Your task to perform on an android device: delete a single message in the gmail app Image 0: 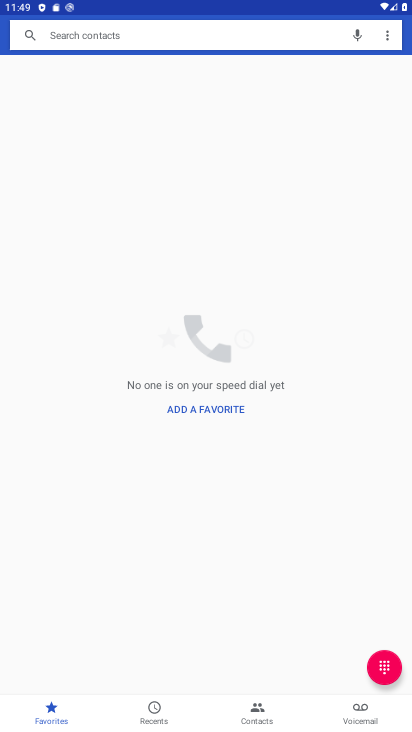
Step 0: press home button
Your task to perform on an android device: delete a single message in the gmail app Image 1: 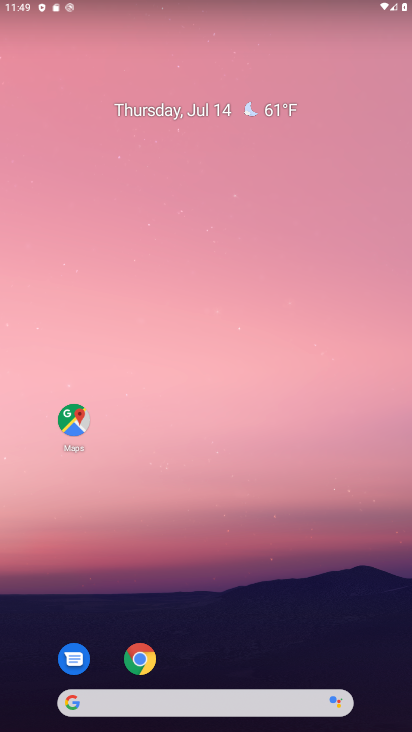
Step 1: drag from (266, 640) to (359, 74)
Your task to perform on an android device: delete a single message in the gmail app Image 2: 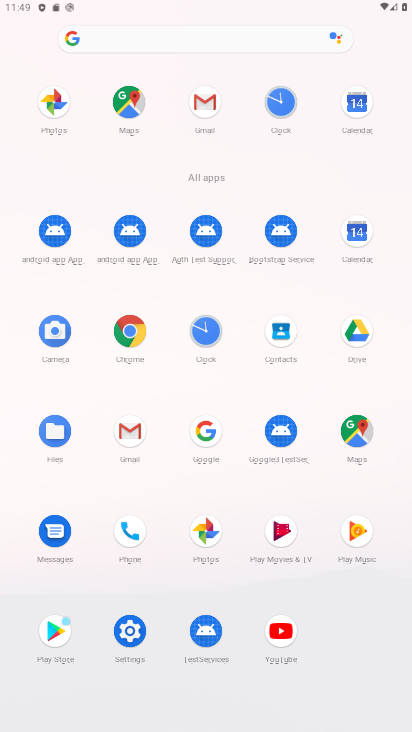
Step 2: click (201, 104)
Your task to perform on an android device: delete a single message in the gmail app Image 3: 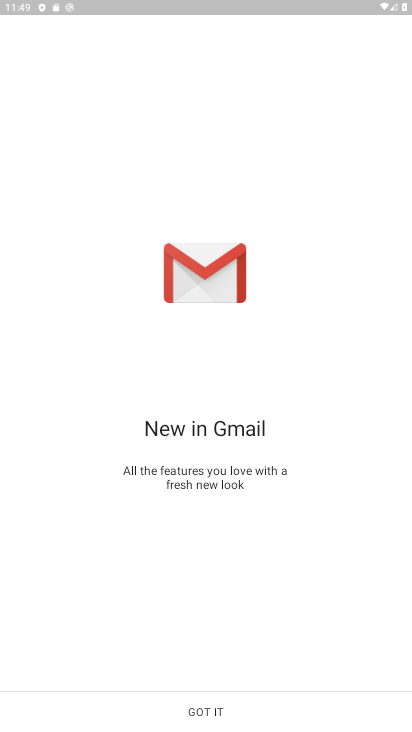
Step 3: click (226, 712)
Your task to perform on an android device: delete a single message in the gmail app Image 4: 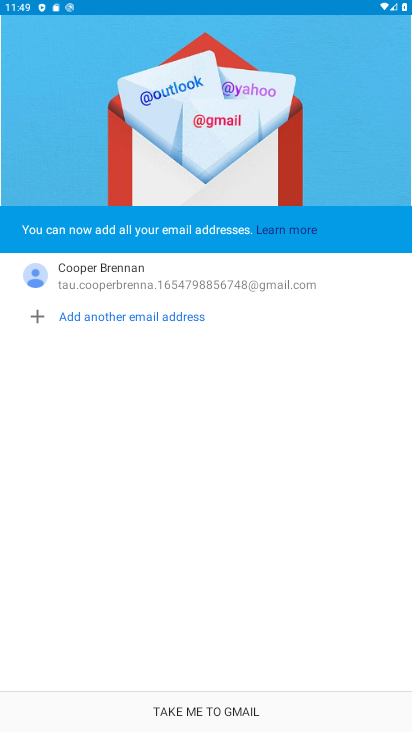
Step 4: click (263, 711)
Your task to perform on an android device: delete a single message in the gmail app Image 5: 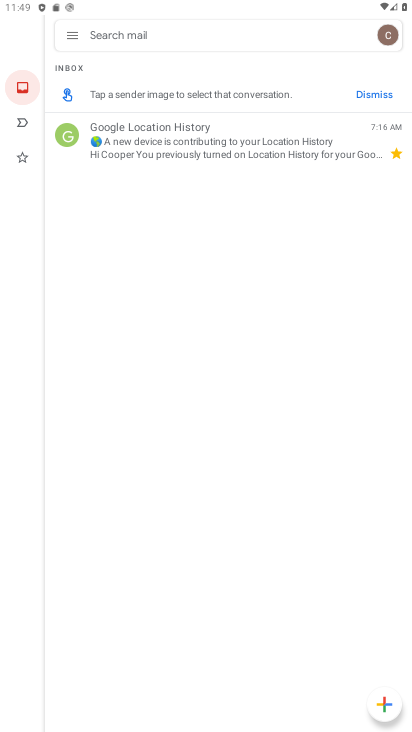
Step 5: click (61, 132)
Your task to perform on an android device: delete a single message in the gmail app Image 6: 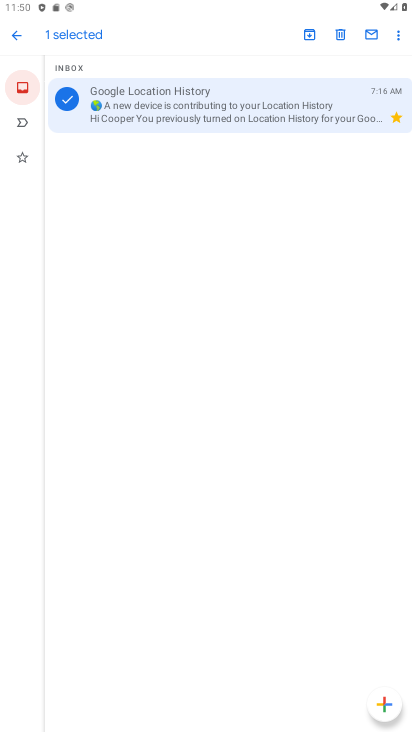
Step 6: click (345, 31)
Your task to perform on an android device: delete a single message in the gmail app Image 7: 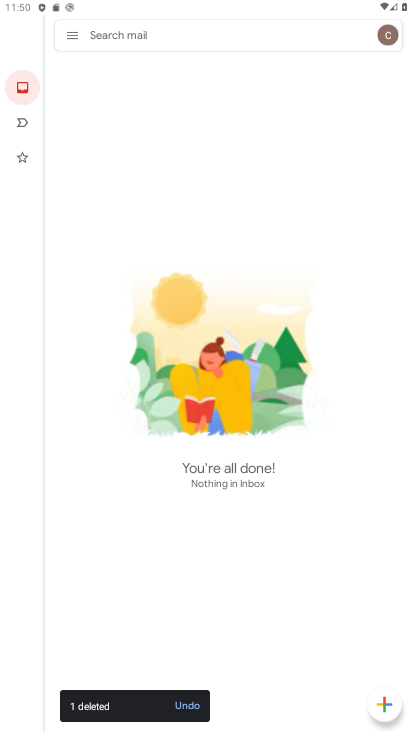
Step 7: task complete